Your task to perform on an android device: Open privacy settings Image 0: 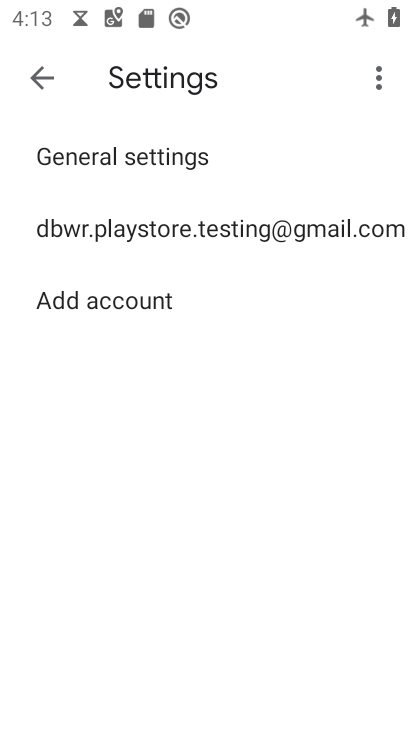
Step 0: press home button
Your task to perform on an android device: Open privacy settings Image 1: 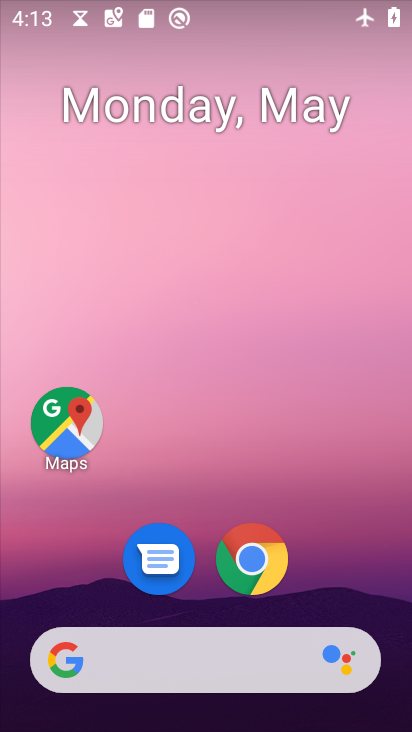
Step 1: drag from (316, 584) to (339, 0)
Your task to perform on an android device: Open privacy settings Image 2: 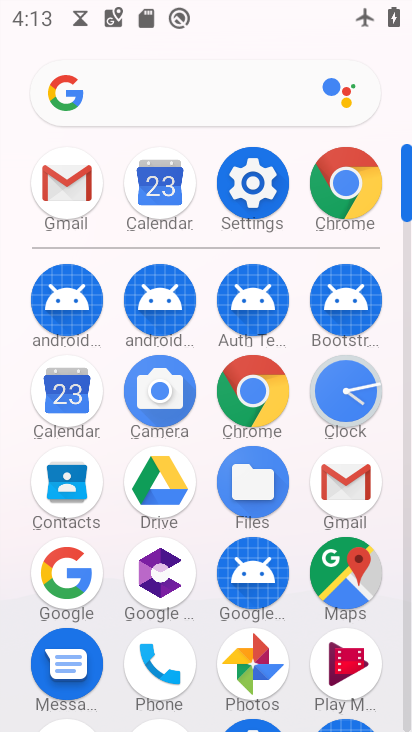
Step 2: click (248, 184)
Your task to perform on an android device: Open privacy settings Image 3: 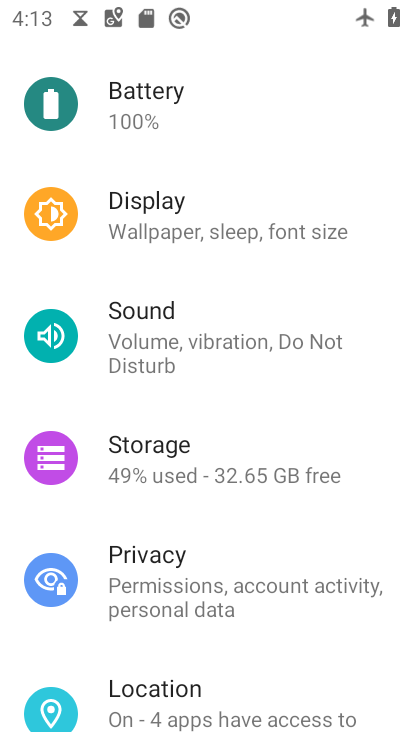
Step 3: click (121, 592)
Your task to perform on an android device: Open privacy settings Image 4: 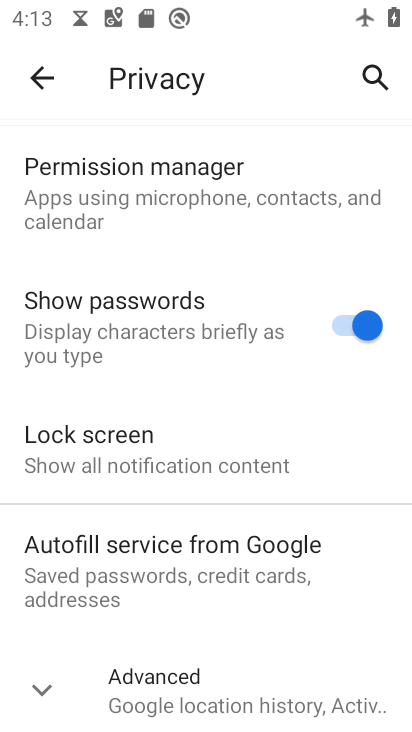
Step 4: task complete